Your task to perform on an android device: turn off location Image 0: 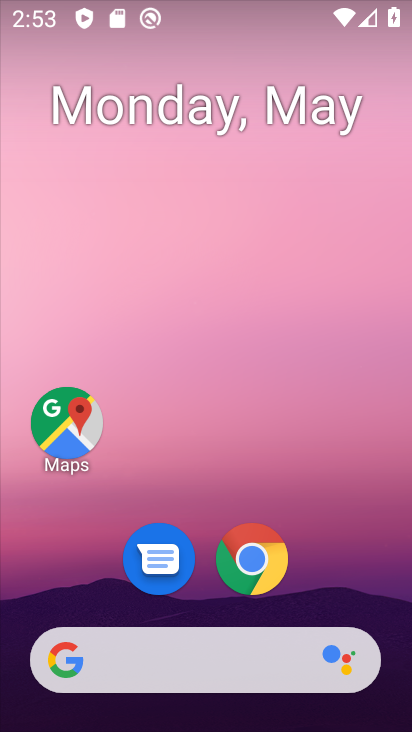
Step 0: drag from (302, 678) to (235, 235)
Your task to perform on an android device: turn off location Image 1: 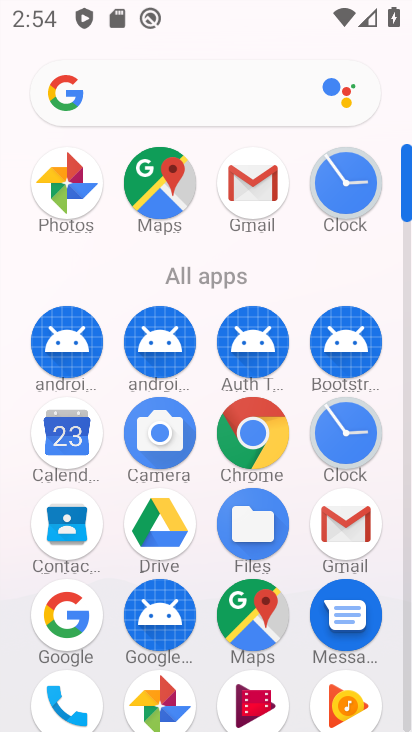
Step 1: click (149, 192)
Your task to perform on an android device: turn off location Image 2: 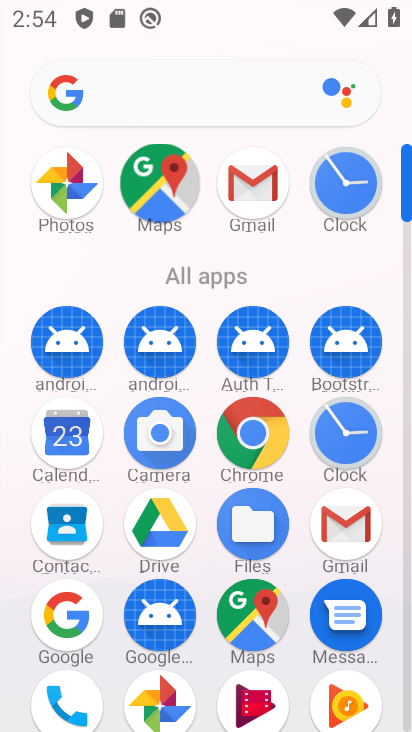
Step 2: click (150, 192)
Your task to perform on an android device: turn off location Image 3: 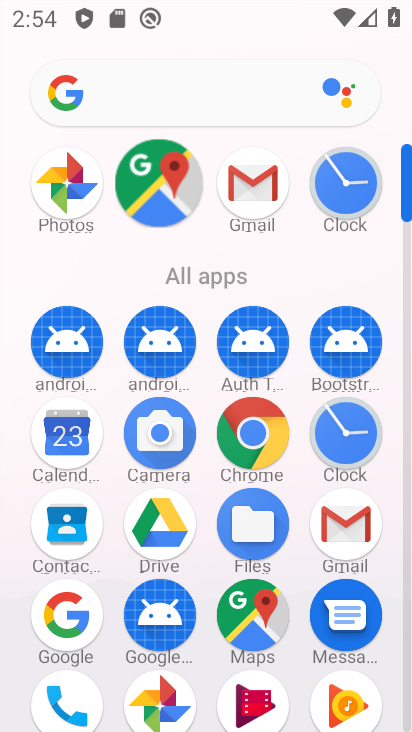
Step 3: click (150, 192)
Your task to perform on an android device: turn off location Image 4: 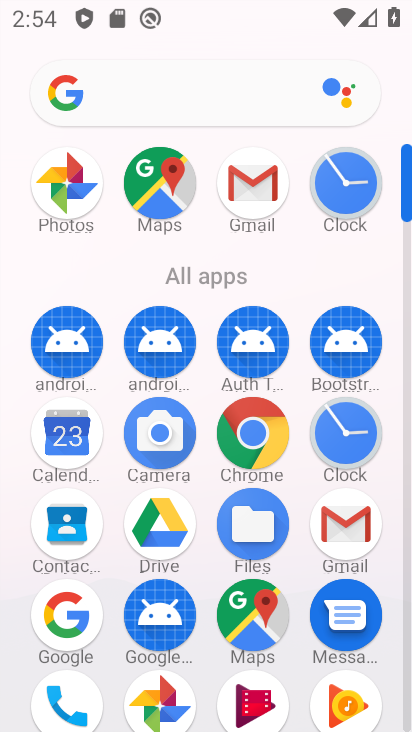
Step 4: click (151, 192)
Your task to perform on an android device: turn off location Image 5: 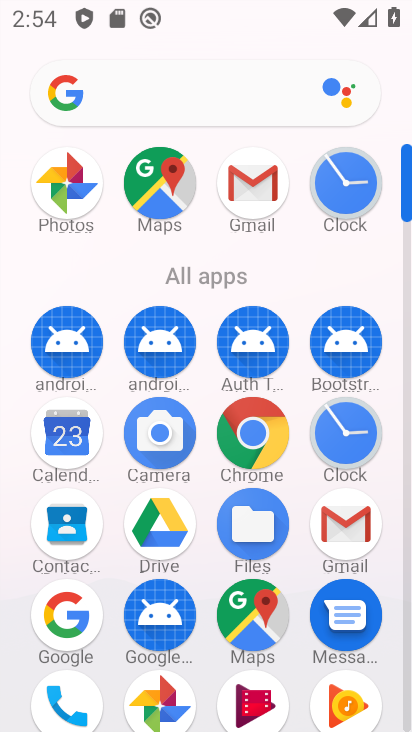
Step 5: click (152, 192)
Your task to perform on an android device: turn off location Image 6: 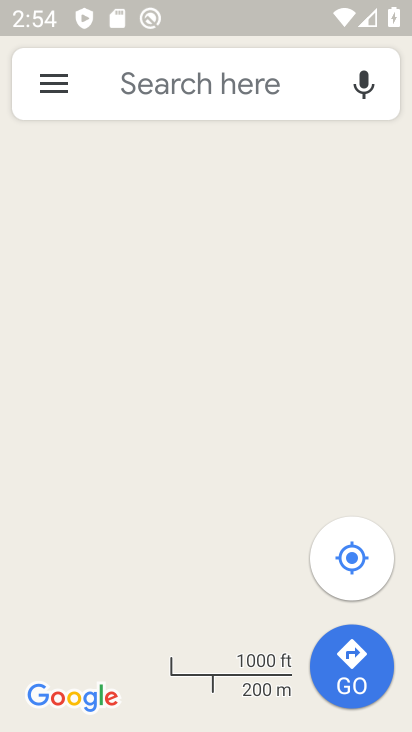
Step 6: click (56, 84)
Your task to perform on an android device: turn off location Image 7: 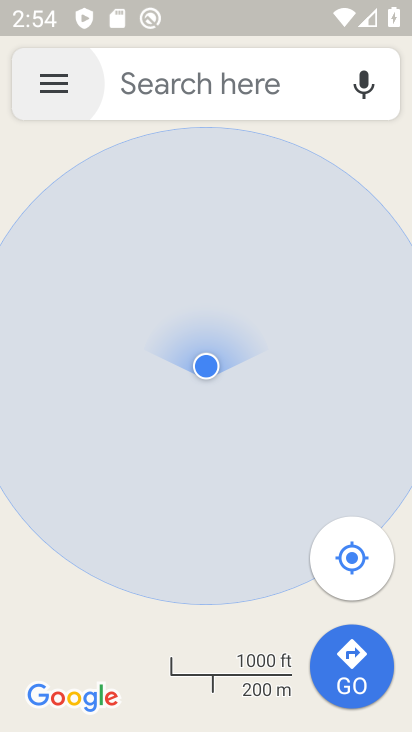
Step 7: click (56, 84)
Your task to perform on an android device: turn off location Image 8: 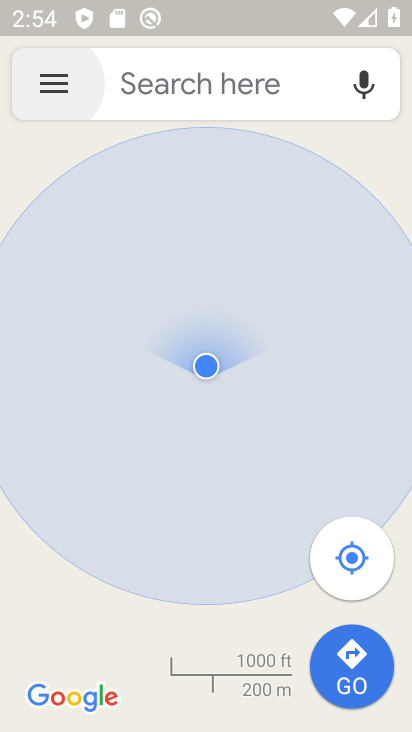
Step 8: click (56, 84)
Your task to perform on an android device: turn off location Image 9: 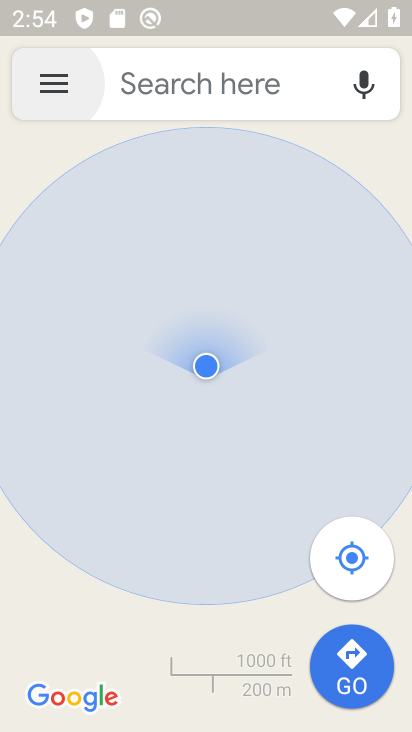
Step 9: click (56, 84)
Your task to perform on an android device: turn off location Image 10: 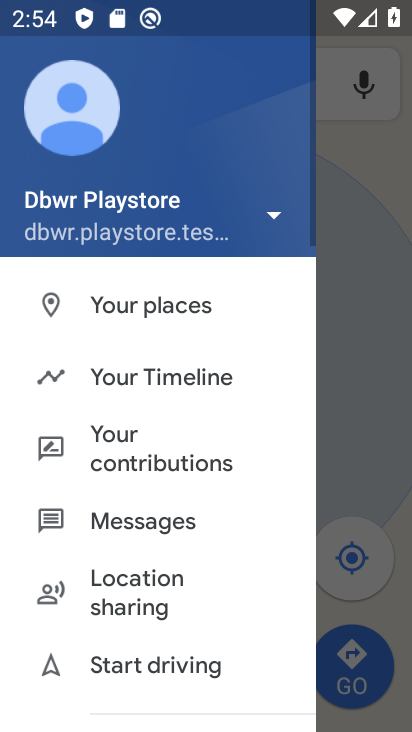
Step 10: click (58, 83)
Your task to perform on an android device: turn off location Image 11: 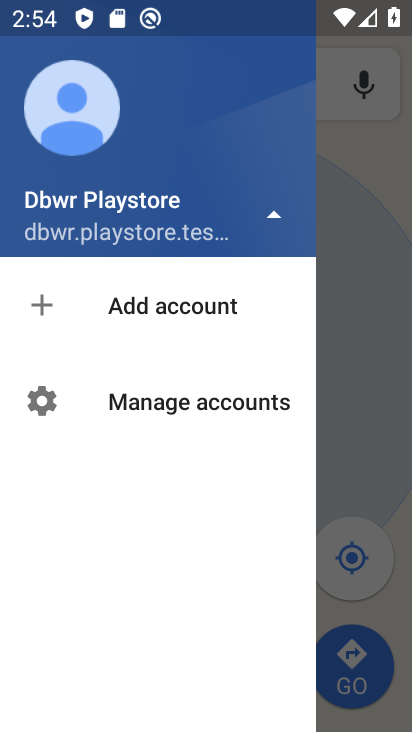
Step 11: press back button
Your task to perform on an android device: turn off location Image 12: 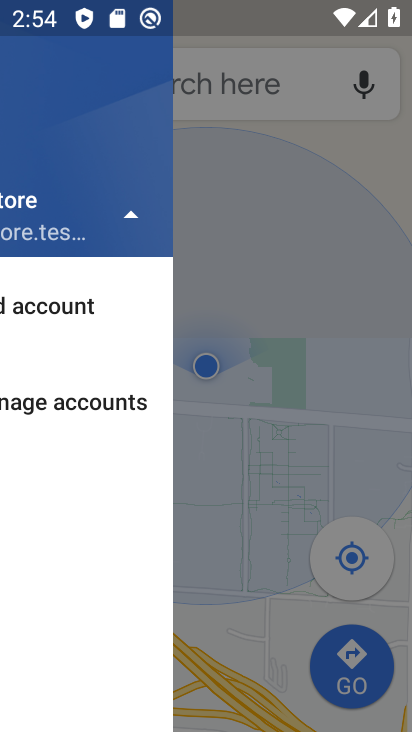
Step 12: press back button
Your task to perform on an android device: turn off location Image 13: 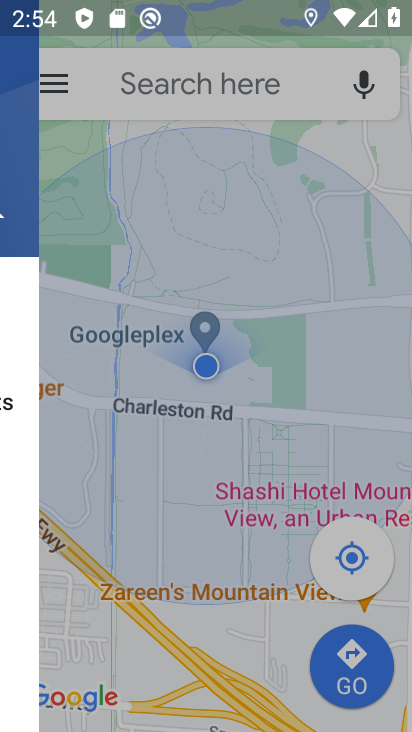
Step 13: press back button
Your task to perform on an android device: turn off location Image 14: 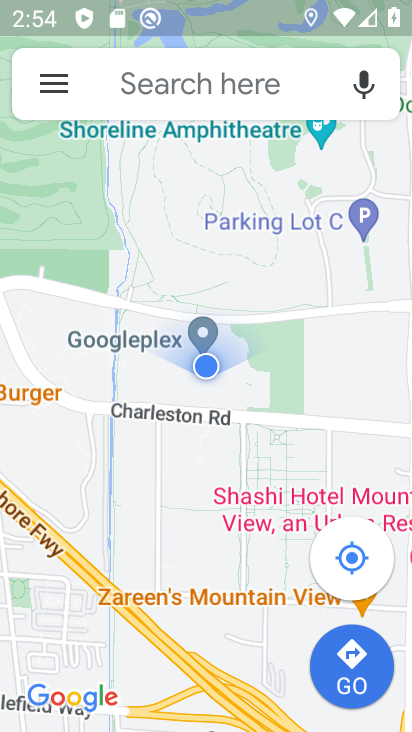
Step 14: press home button
Your task to perform on an android device: turn off location Image 15: 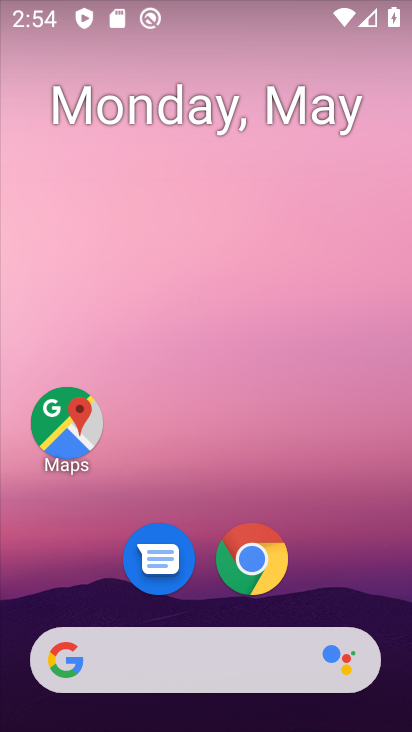
Step 15: drag from (266, 594) to (213, 0)
Your task to perform on an android device: turn off location Image 16: 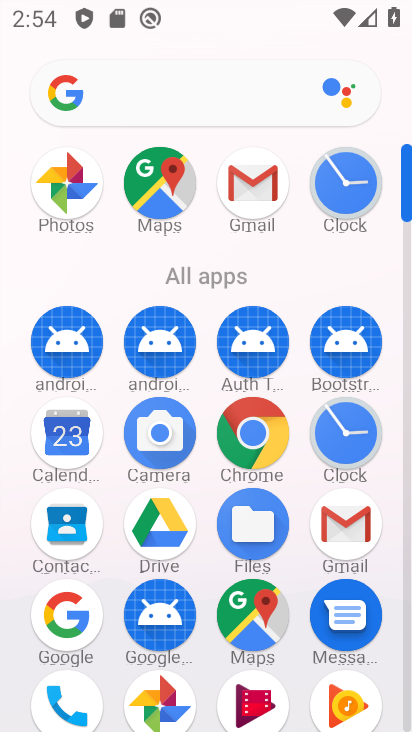
Step 16: drag from (235, 559) to (235, 244)
Your task to perform on an android device: turn off location Image 17: 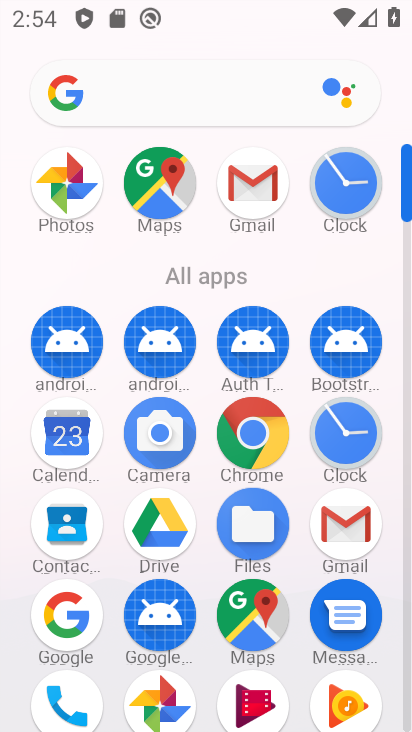
Step 17: drag from (237, 95) to (262, 147)
Your task to perform on an android device: turn off location Image 18: 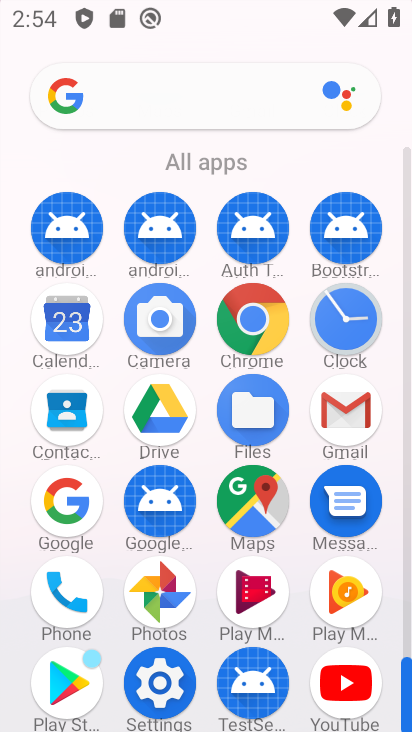
Step 18: drag from (306, 410) to (310, 159)
Your task to perform on an android device: turn off location Image 19: 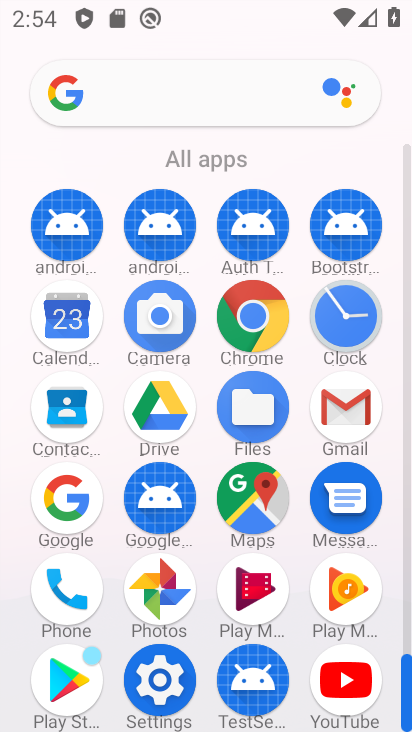
Step 19: click (147, 685)
Your task to perform on an android device: turn off location Image 20: 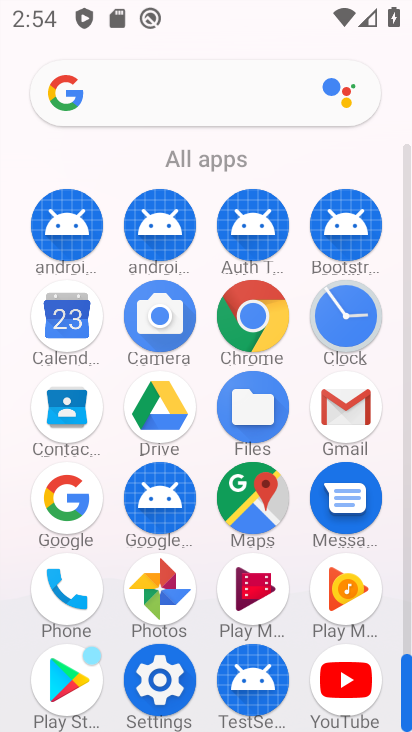
Step 20: click (147, 685)
Your task to perform on an android device: turn off location Image 21: 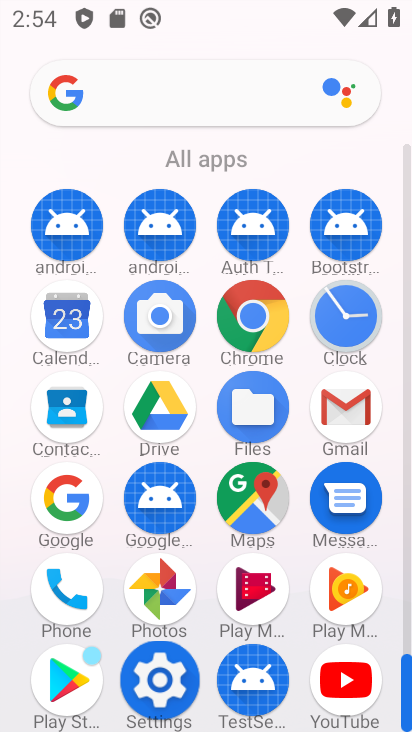
Step 21: click (148, 684)
Your task to perform on an android device: turn off location Image 22: 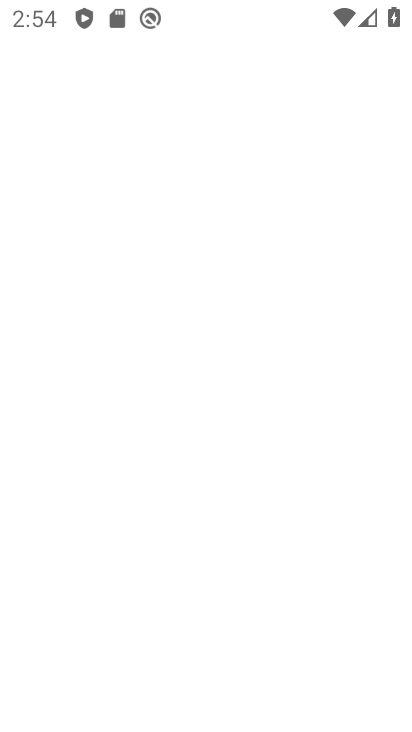
Step 22: click (153, 680)
Your task to perform on an android device: turn off location Image 23: 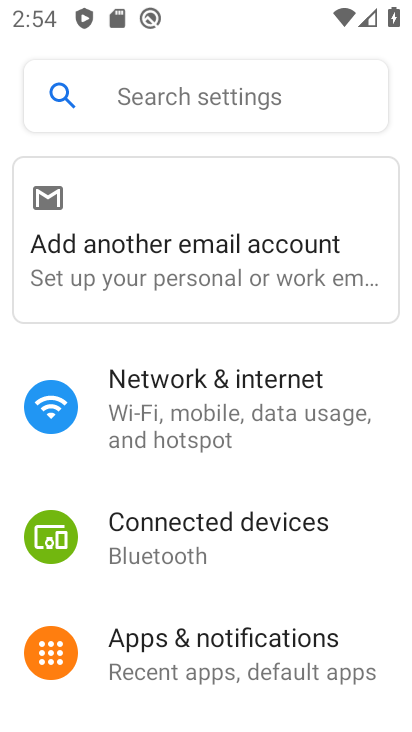
Step 23: drag from (238, 586) to (208, 270)
Your task to perform on an android device: turn off location Image 24: 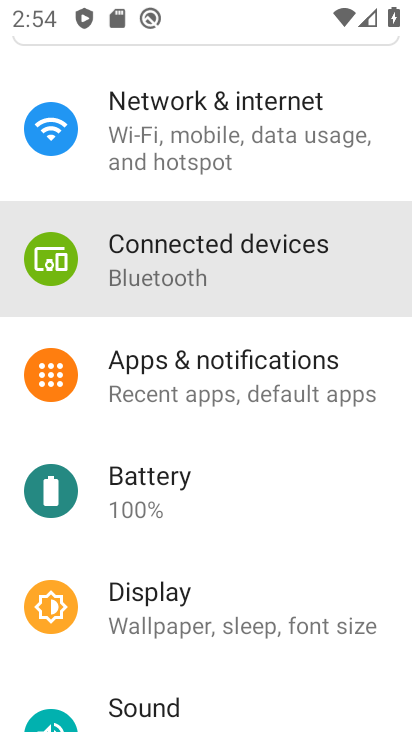
Step 24: drag from (250, 455) to (250, 153)
Your task to perform on an android device: turn off location Image 25: 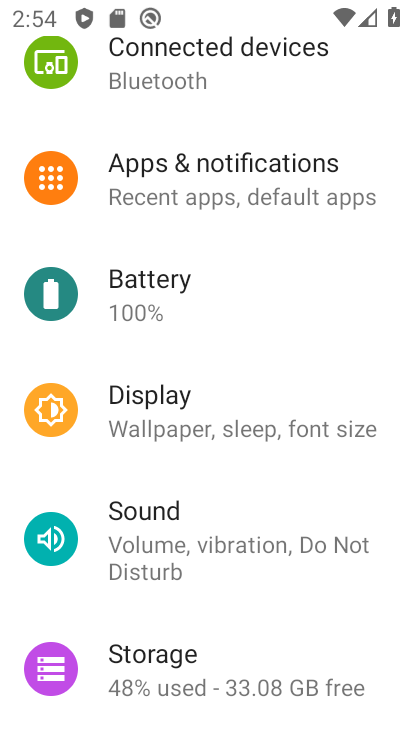
Step 25: drag from (183, 597) to (171, 166)
Your task to perform on an android device: turn off location Image 26: 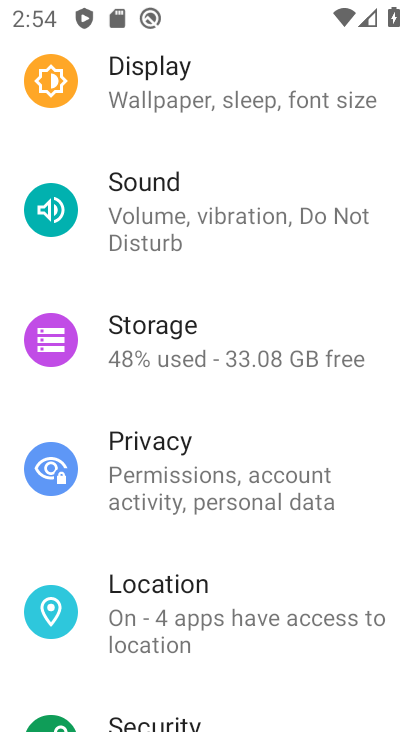
Step 26: drag from (209, 414) to (242, 50)
Your task to perform on an android device: turn off location Image 27: 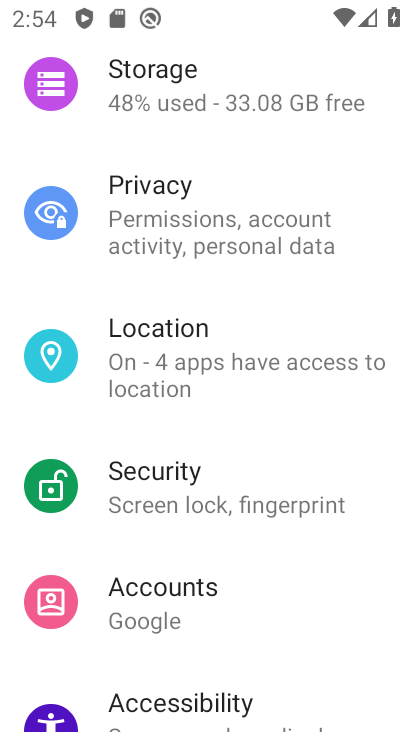
Step 27: click (149, 340)
Your task to perform on an android device: turn off location Image 28: 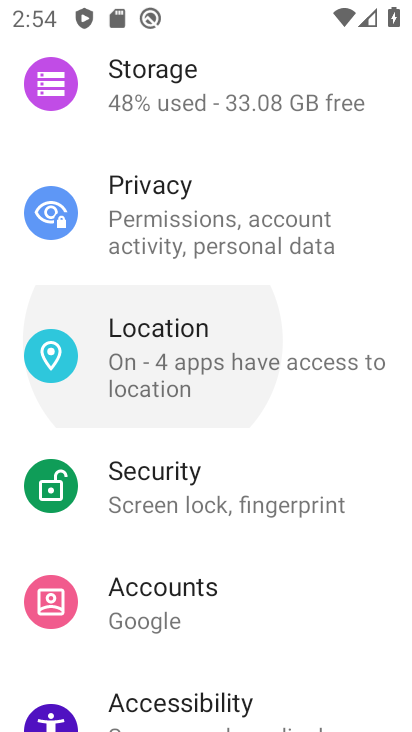
Step 28: click (170, 374)
Your task to perform on an android device: turn off location Image 29: 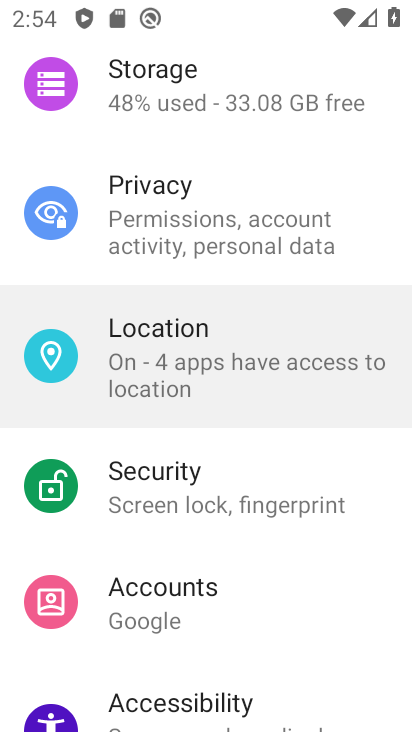
Step 29: click (170, 372)
Your task to perform on an android device: turn off location Image 30: 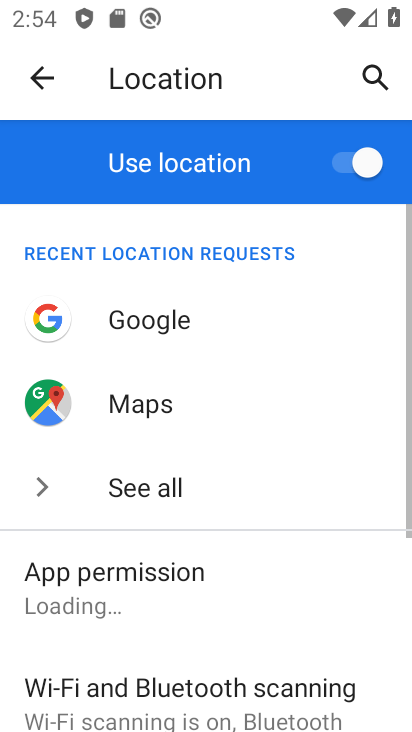
Step 30: drag from (206, 475) to (201, 170)
Your task to perform on an android device: turn off location Image 31: 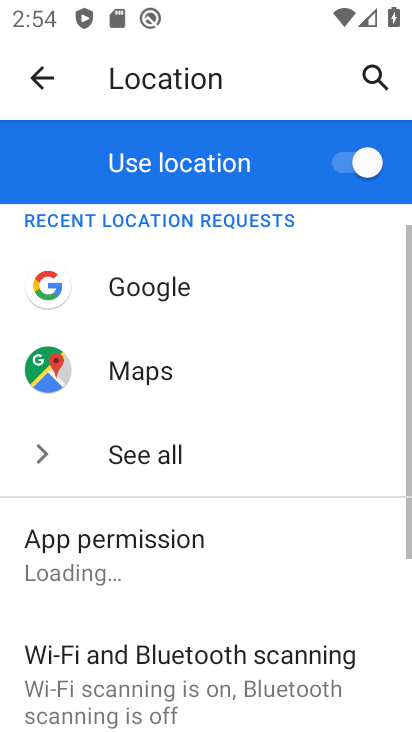
Step 31: drag from (265, 221) to (265, 175)
Your task to perform on an android device: turn off location Image 32: 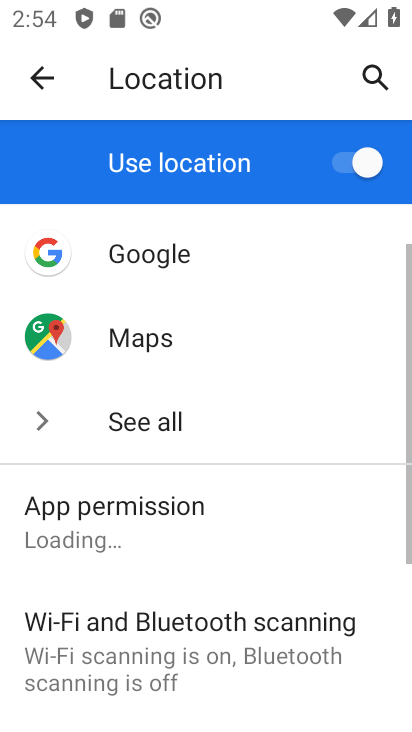
Step 32: drag from (288, 420) to (271, 147)
Your task to perform on an android device: turn off location Image 33: 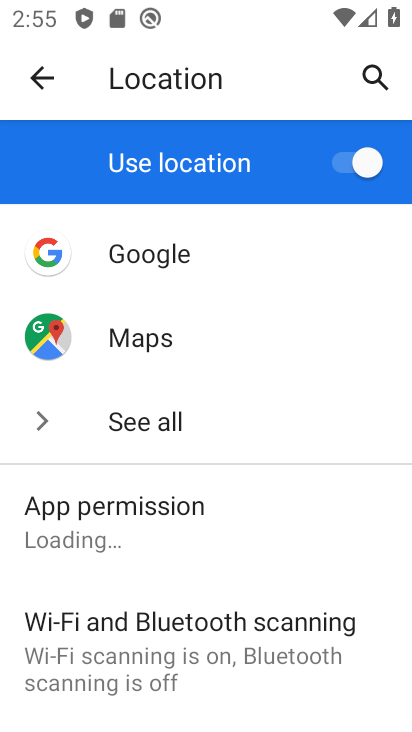
Step 33: drag from (175, 355) to (174, 223)
Your task to perform on an android device: turn off location Image 34: 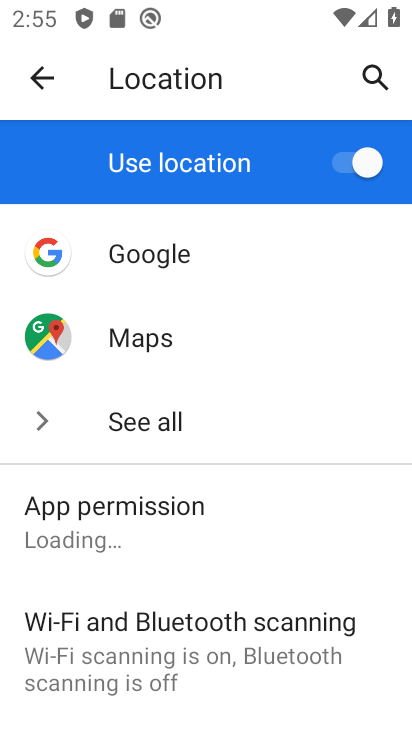
Step 34: drag from (225, 456) to (260, 111)
Your task to perform on an android device: turn off location Image 35: 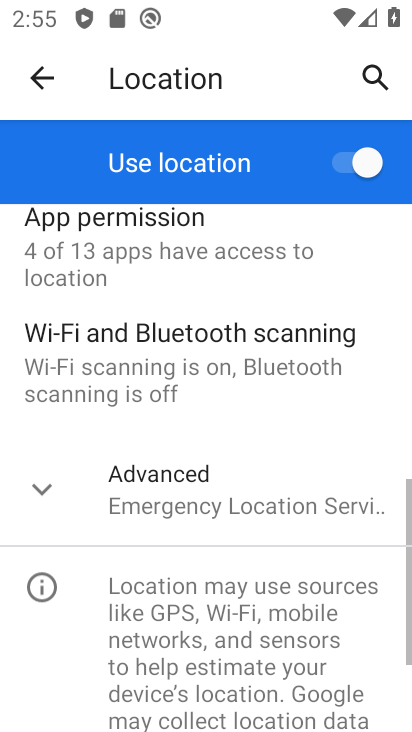
Step 35: click (364, 157)
Your task to perform on an android device: turn off location Image 36: 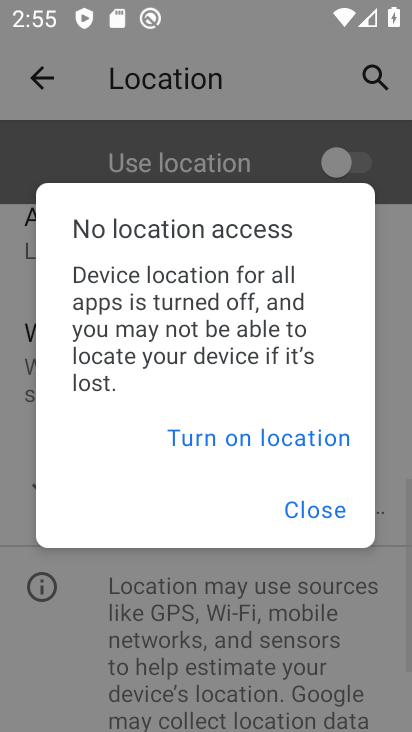
Step 36: click (363, 162)
Your task to perform on an android device: turn off location Image 37: 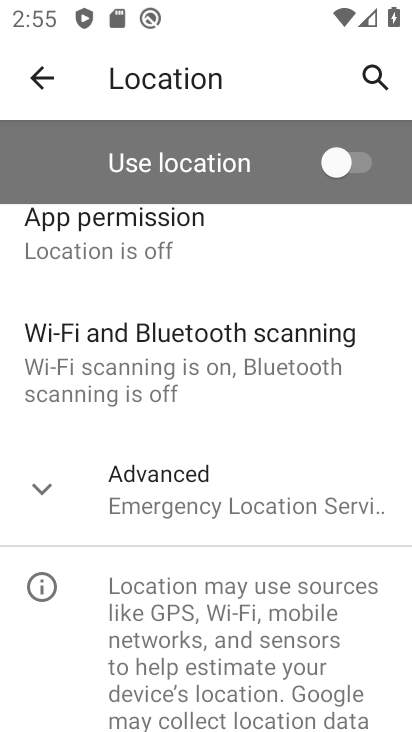
Step 37: task complete